Your task to perform on an android device: change timer sound Image 0: 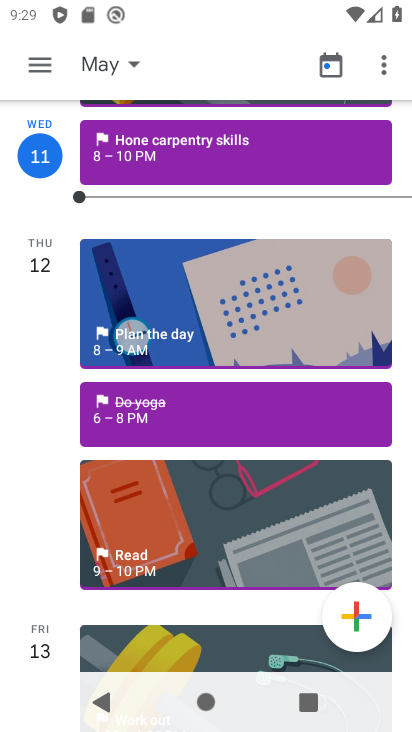
Step 0: press home button
Your task to perform on an android device: change timer sound Image 1: 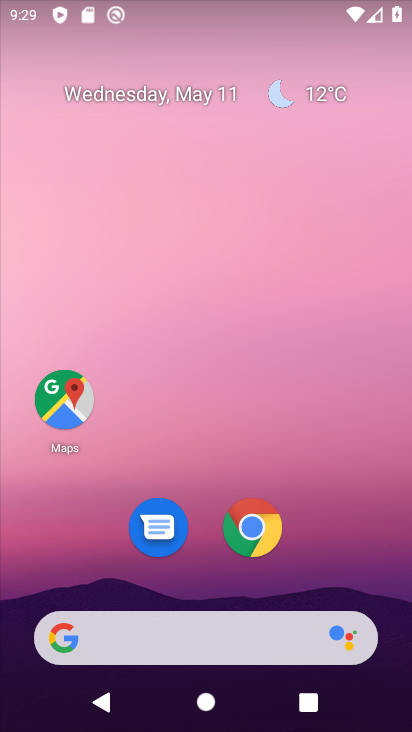
Step 1: drag from (338, 560) to (357, 77)
Your task to perform on an android device: change timer sound Image 2: 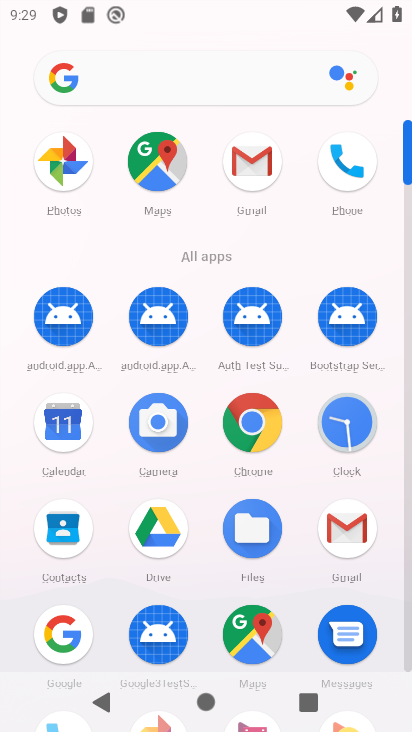
Step 2: click (363, 413)
Your task to perform on an android device: change timer sound Image 3: 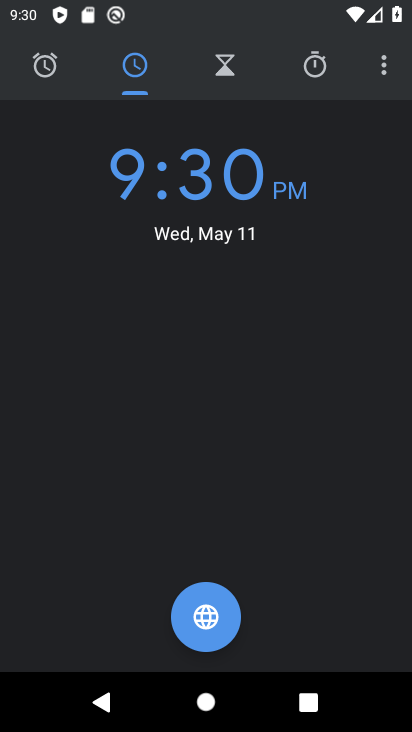
Step 3: click (382, 65)
Your task to perform on an android device: change timer sound Image 4: 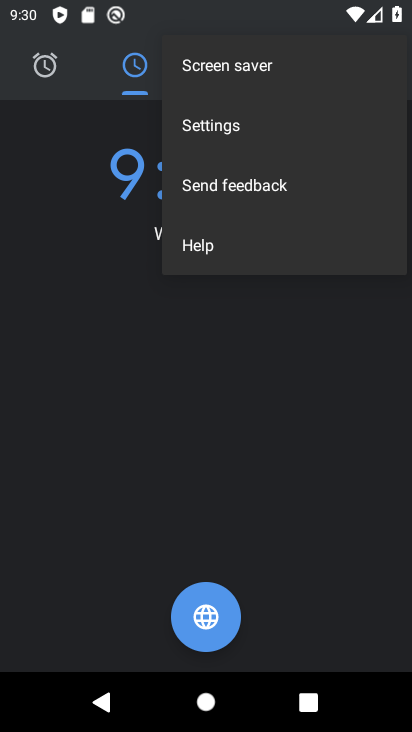
Step 4: click (238, 126)
Your task to perform on an android device: change timer sound Image 5: 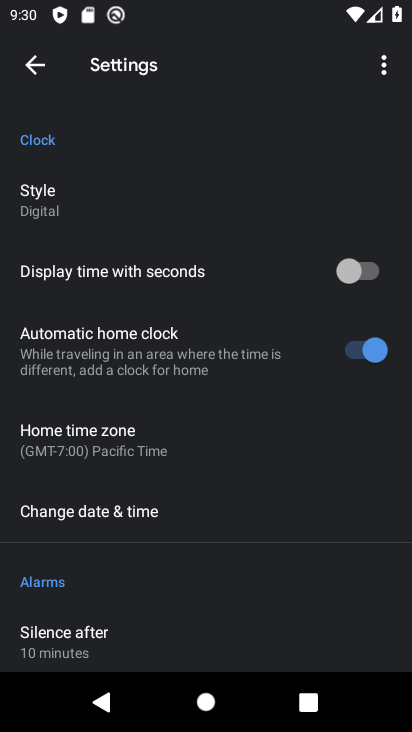
Step 5: drag from (174, 590) to (163, 126)
Your task to perform on an android device: change timer sound Image 6: 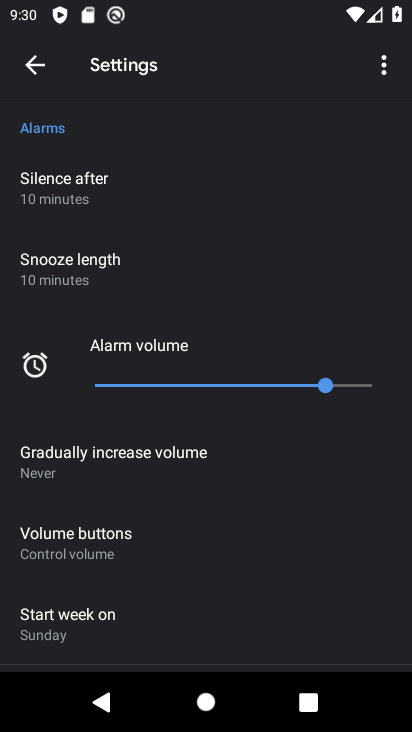
Step 6: drag from (155, 250) to (229, 588)
Your task to perform on an android device: change timer sound Image 7: 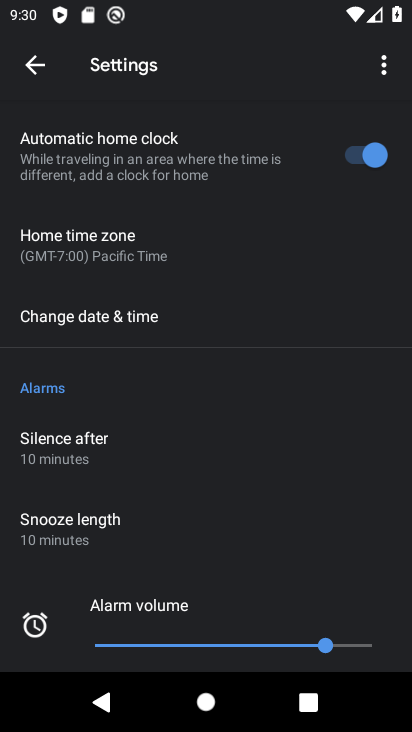
Step 7: drag from (232, 586) to (231, 149)
Your task to perform on an android device: change timer sound Image 8: 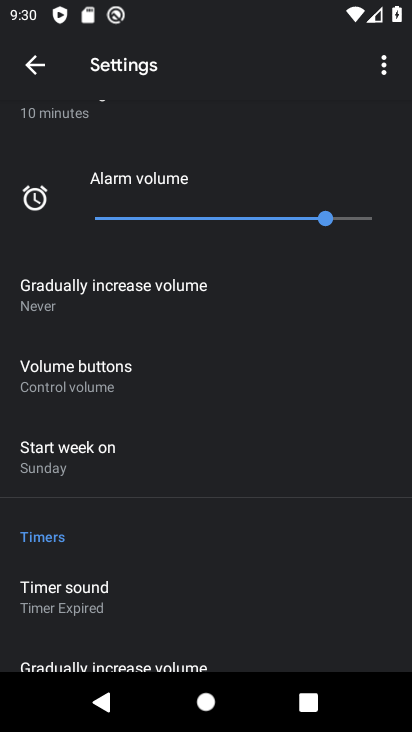
Step 8: click (69, 590)
Your task to perform on an android device: change timer sound Image 9: 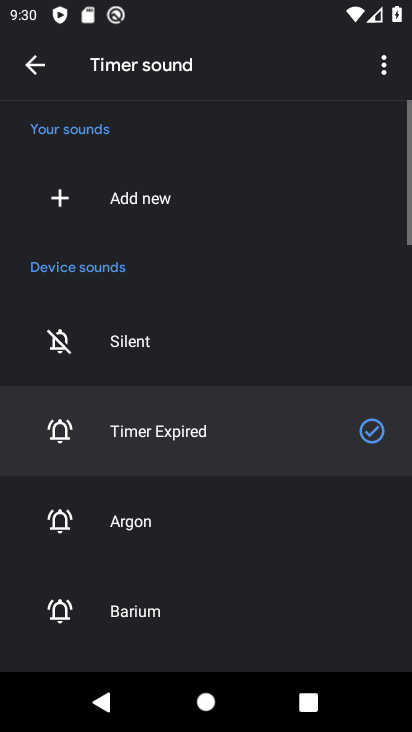
Step 9: click (101, 522)
Your task to perform on an android device: change timer sound Image 10: 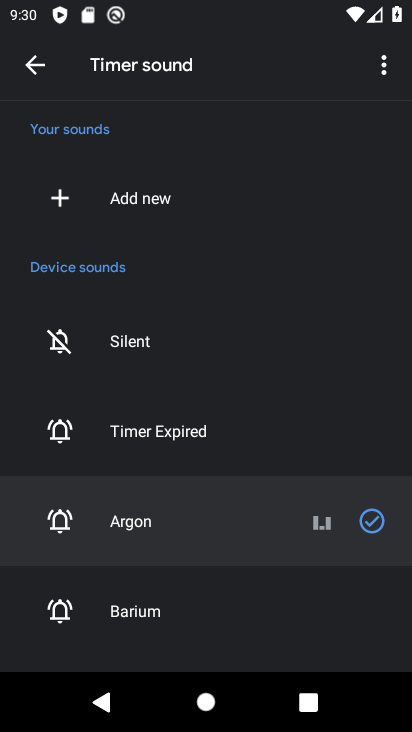
Step 10: task complete